Your task to perform on an android device: Go to ESPN.com Image 0: 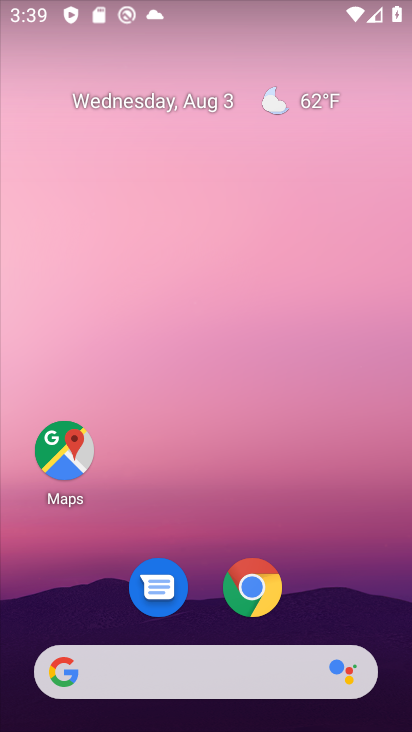
Step 0: click (176, 668)
Your task to perform on an android device: Go to ESPN.com Image 1: 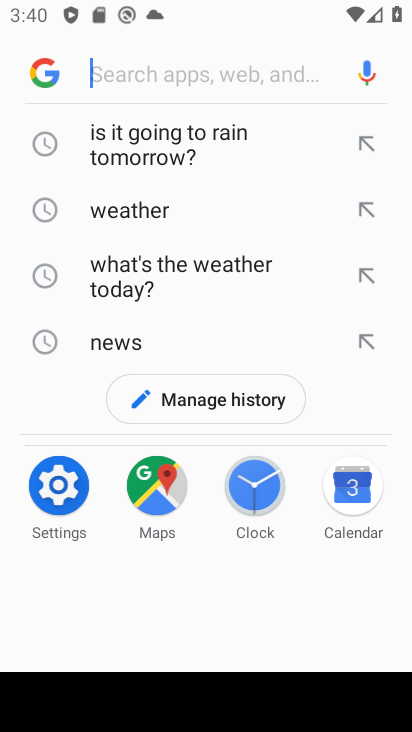
Step 1: type " ESPN.com"
Your task to perform on an android device: Go to ESPN.com Image 2: 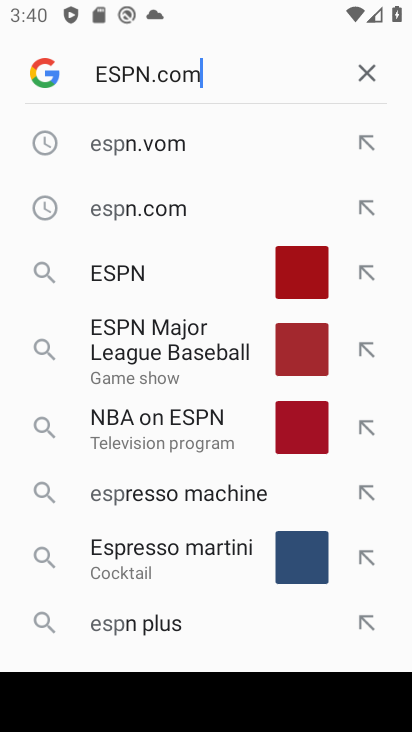
Step 2: type ""
Your task to perform on an android device: Go to ESPN.com Image 3: 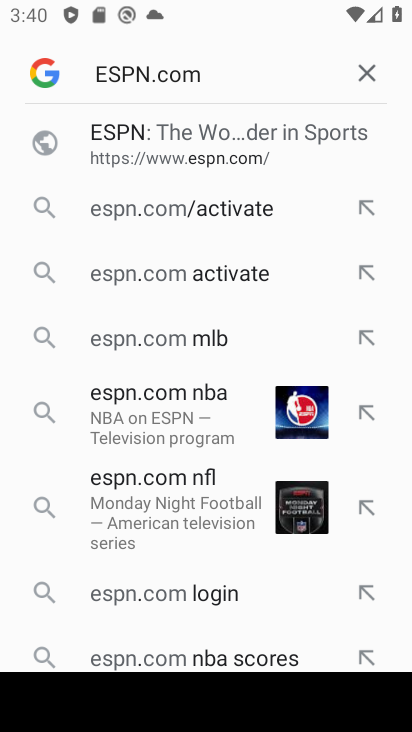
Step 3: type ""
Your task to perform on an android device: Go to ESPN.com Image 4: 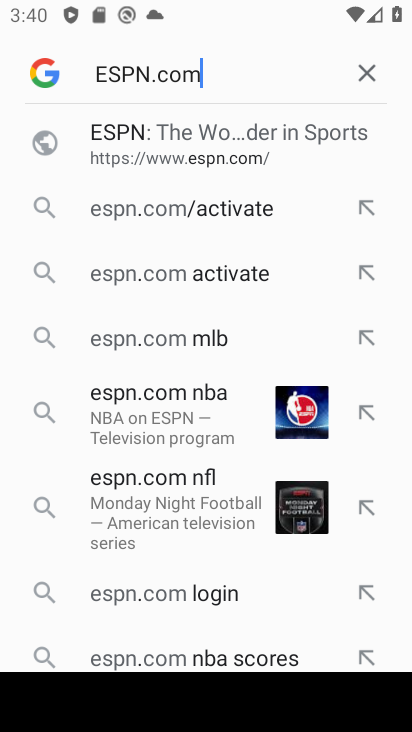
Step 4: type ""
Your task to perform on an android device: Go to ESPN.com Image 5: 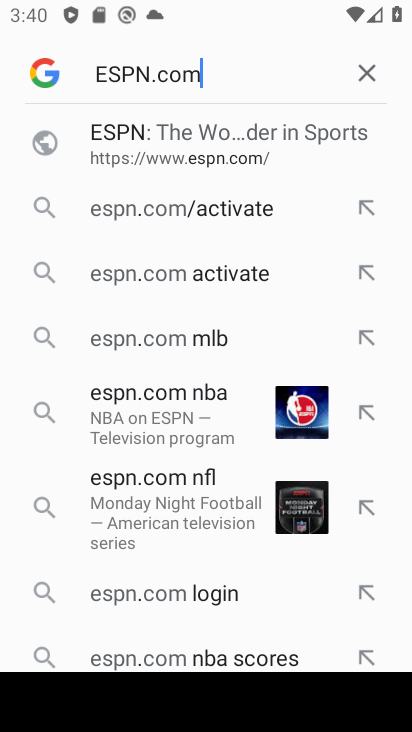
Step 5: task complete